Your task to perform on an android device: toggle improve location accuracy Image 0: 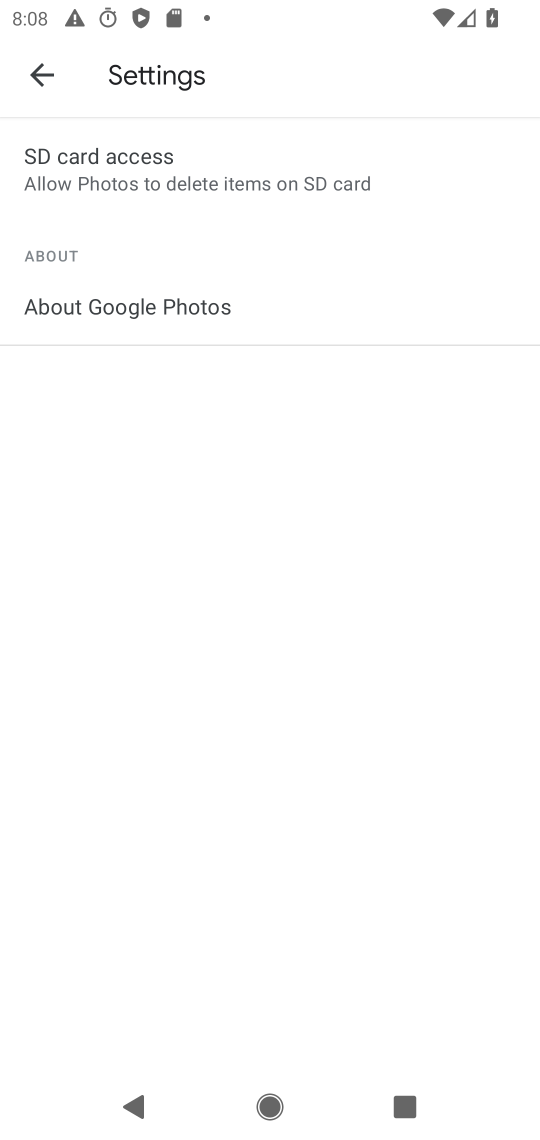
Step 0: press home button
Your task to perform on an android device: toggle improve location accuracy Image 1: 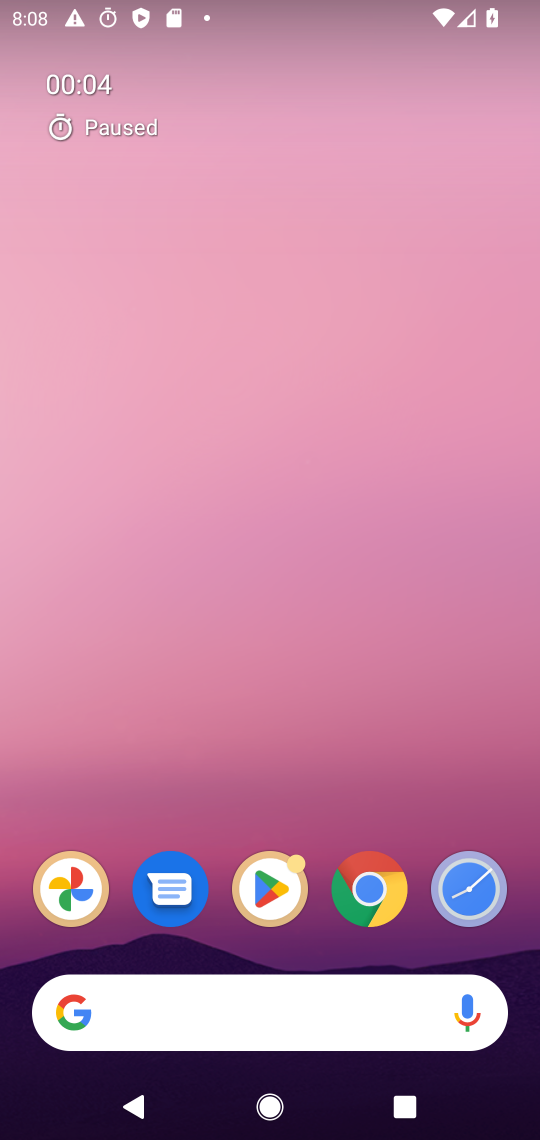
Step 1: drag from (277, 861) to (281, 56)
Your task to perform on an android device: toggle improve location accuracy Image 2: 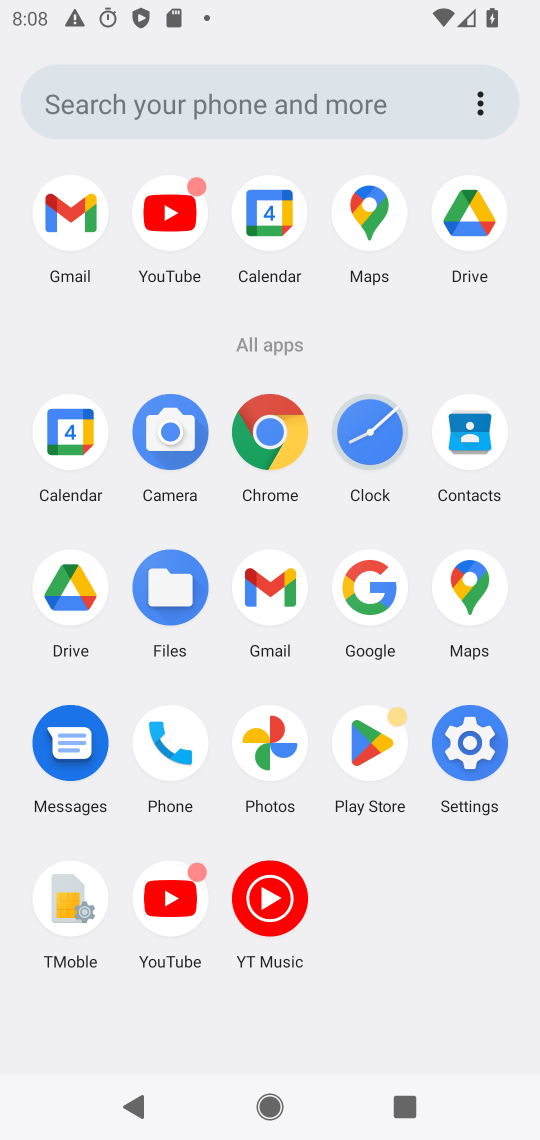
Step 2: click (463, 743)
Your task to perform on an android device: toggle improve location accuracy Image 3: 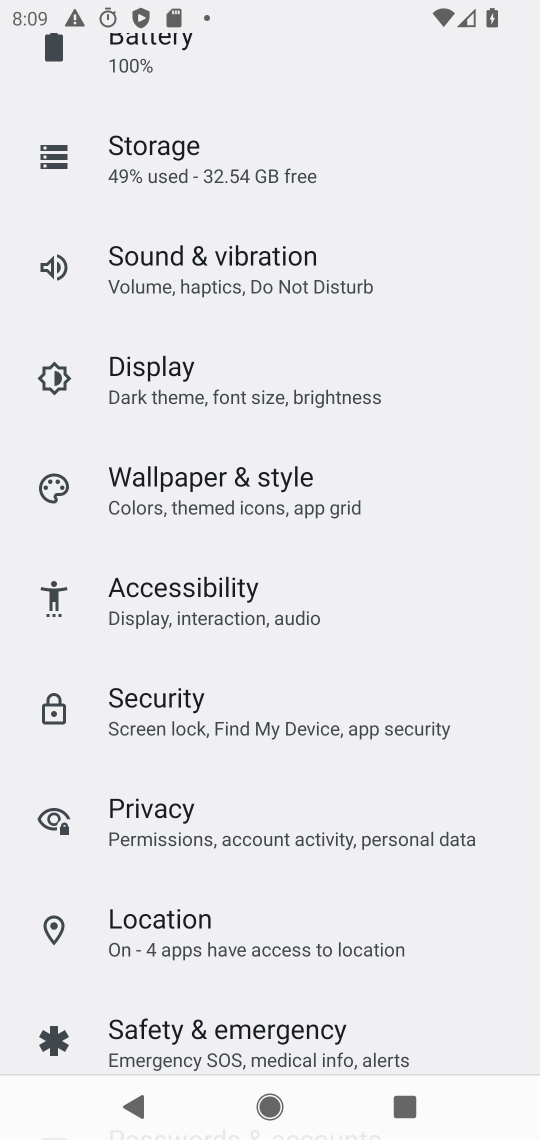
Step 3: click (198, 943)
Your task to perform on an android device: toggle improve location accuracy Image 4: 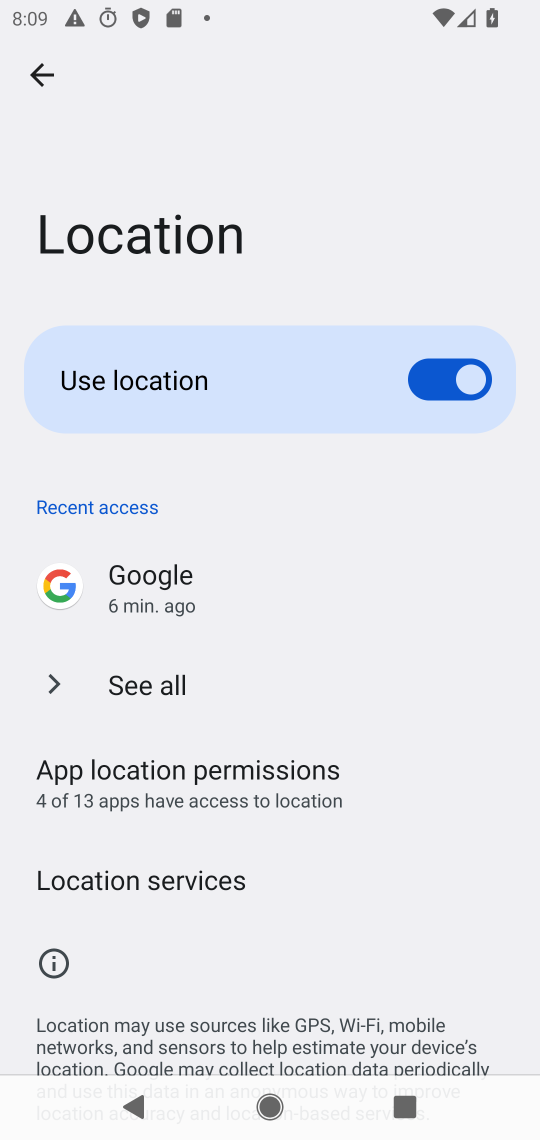
Step 4: click (133, 877)
Your task to perform on an android device: toggle improve location accuracy Image 5: 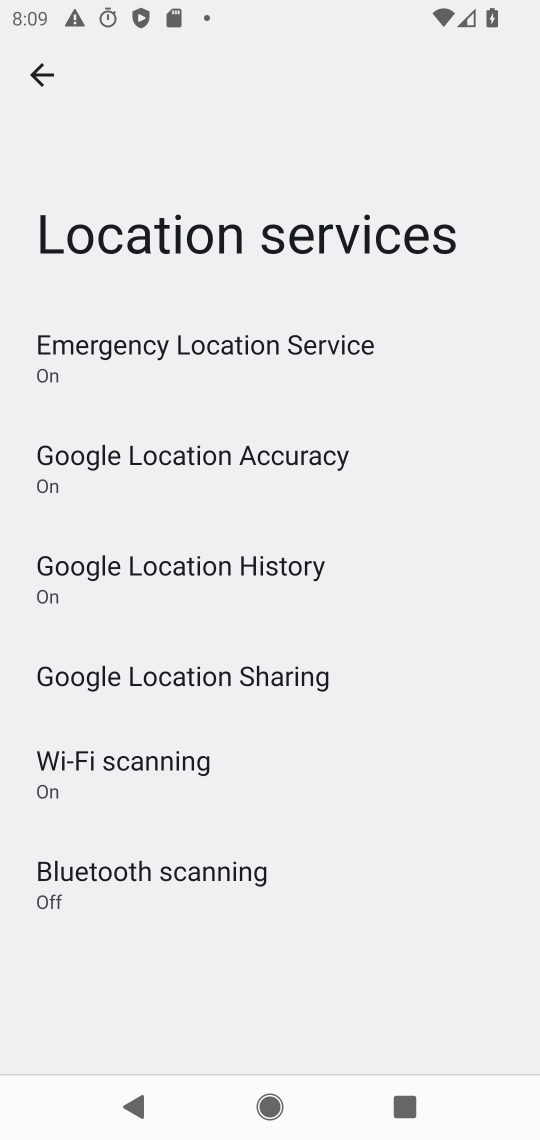
Step 5: click (298, 479)
Your task to perform on an android device: toggle improve location accuracy Image 6: 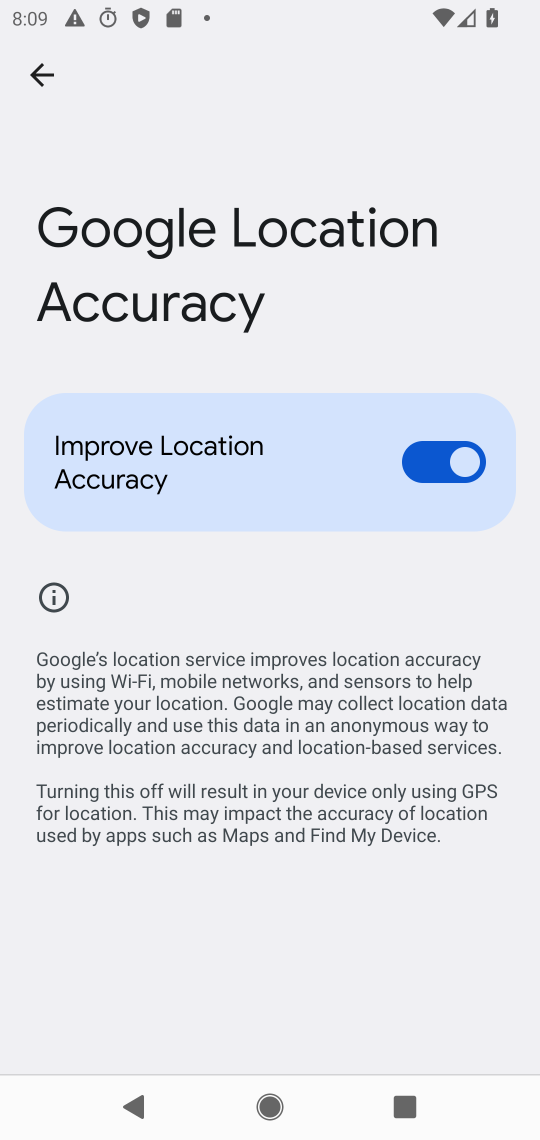
Step 6: click (432, 453)
Your task to perform on an android device: toggle improve location accuracy Image 7: 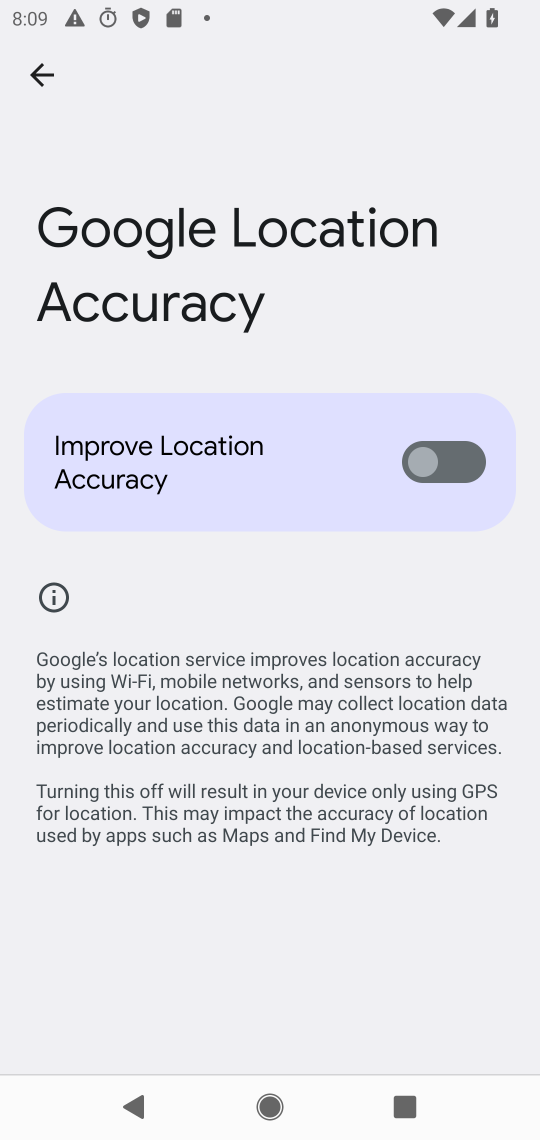
Step 7: task complete